Your task to perform on an android device: turn on notifications settings in the gmail app Image 0: 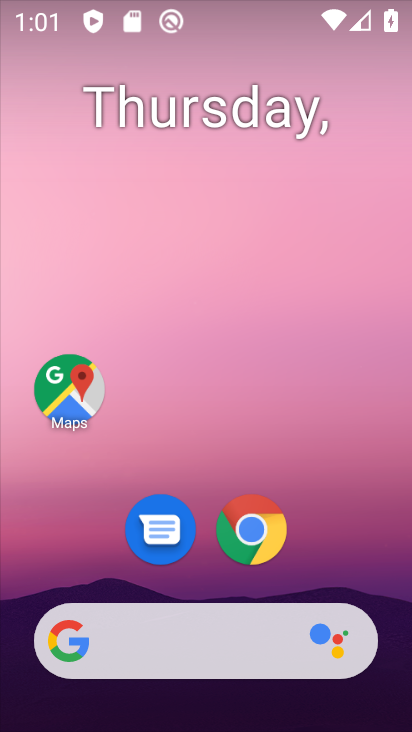
Step 0: drag from (379, 561) to (376, 133)
Your task to perform on an android device: turn on notifications settings in the gmail app Image 1: 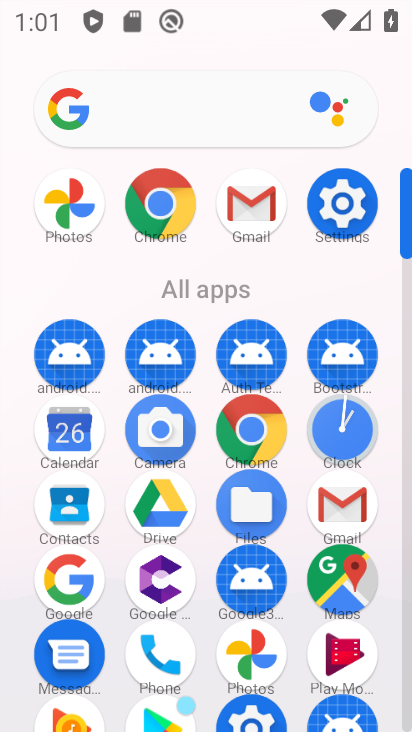
Step 1: click (353, 522)
Your task to perform on an android device: turn on notifications settings in the gmail app Image 2: 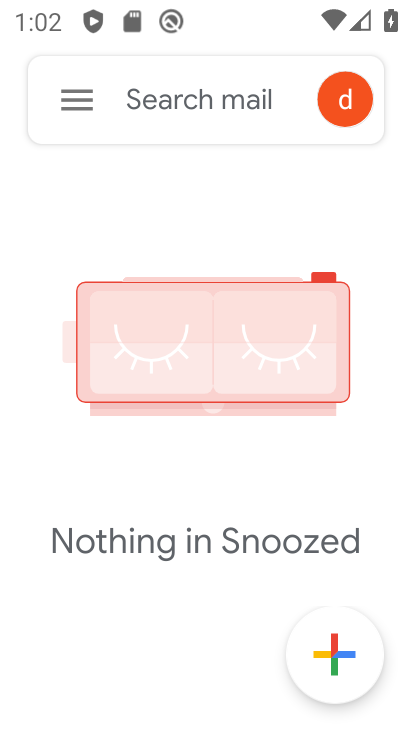
Step 2: click (90, 109)
Your task to perform on an android device: turn on notifications settings in the gmail app Image 3: 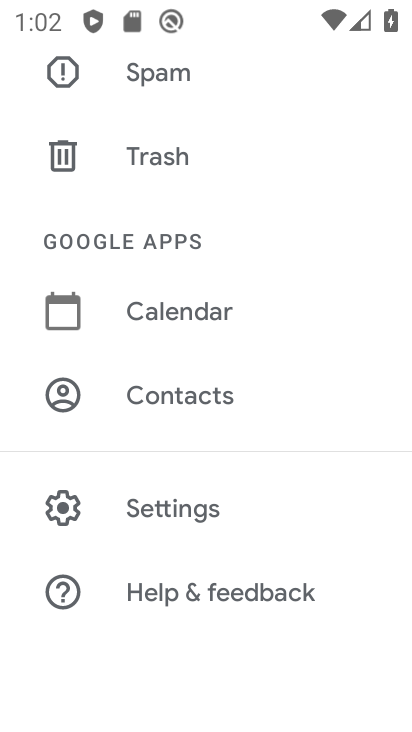
Step 3: click (206, 507)
Your task to perform on an android device: turn on notifications settings in the gmail app Image 4: 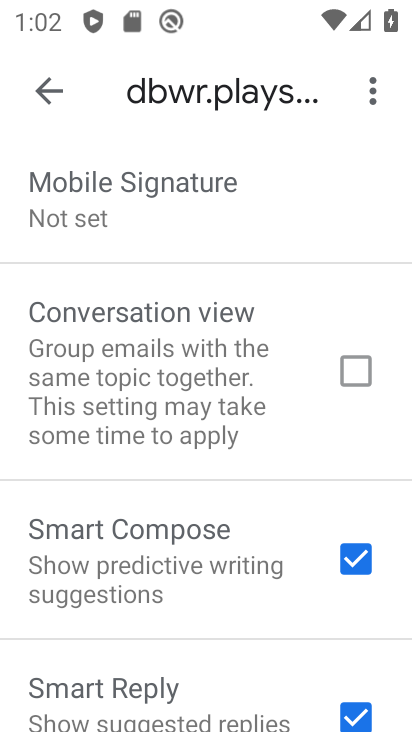
Step 4: drag from (218, 234) to (207, 680)
Your task to perform on an android device: turn on notifications settings in the gmail app Image 5: 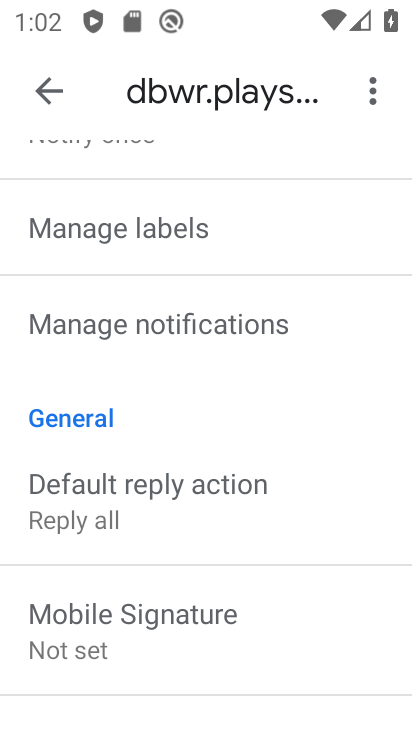
Step 5: drag from (283, 240) to (236, 601)
Your task to perform on an android device: turn on notifications settings in the gmail app Image 6: 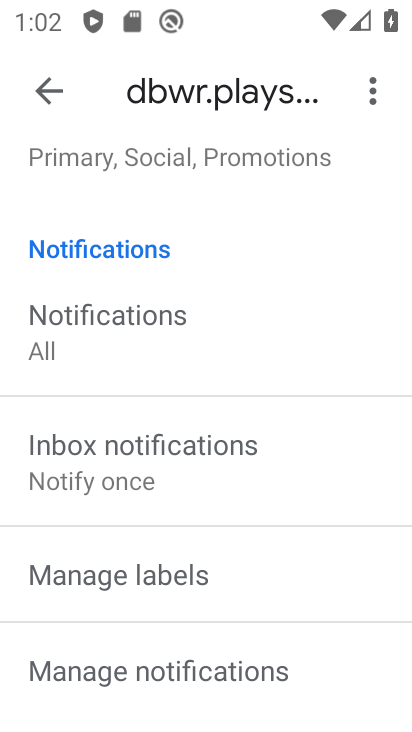
Step 6: click (153, 324)
Your task to perform on an android device: turn on notifications settings in the gmail app Image 7: 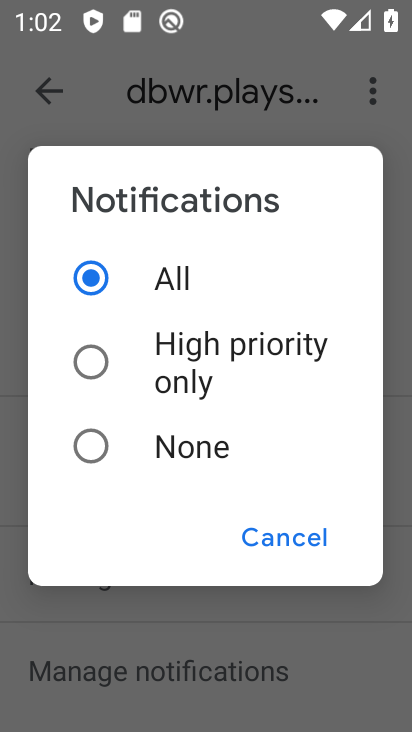
Step 7: task complete